Your task to perform on an android device: Open the calendar and show me this week's events? Image 0: 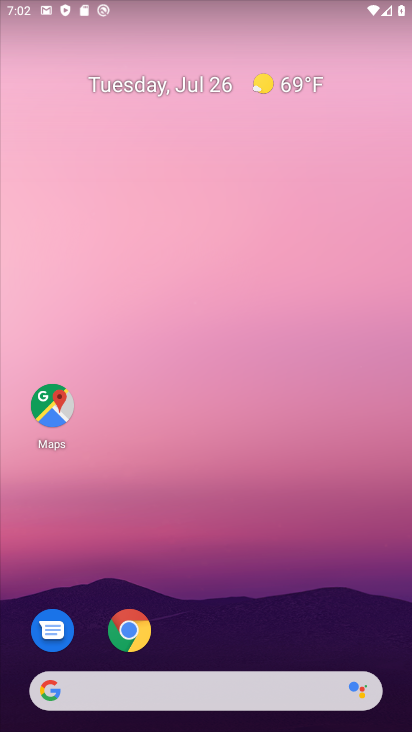
Step 0: drag from (280, 613) to (304, 35)
Your task to perform on an android device: Open the calendar and show me this week's events? Image 1: 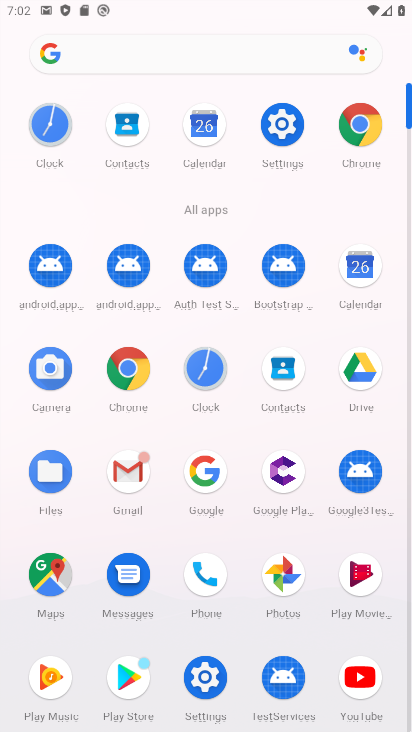
Step 1: click (371, 278)
Your task to perform on an android device: Open the calendar and show me this week's events? Image 2: 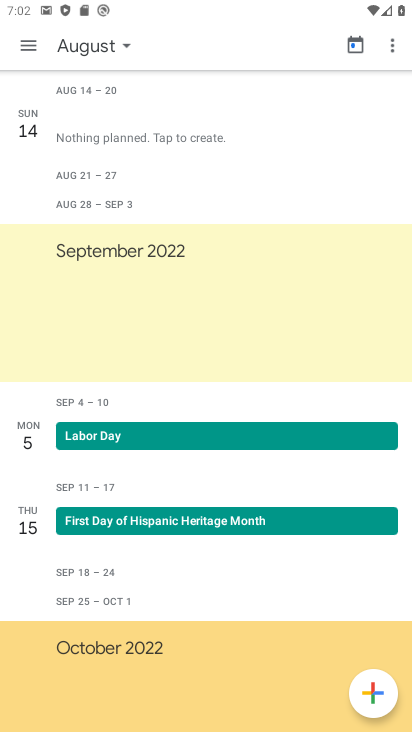
Step 2: click (23, 49)
Your task to perform on an android device: Open the calendar and show me this week's events? Image 3: 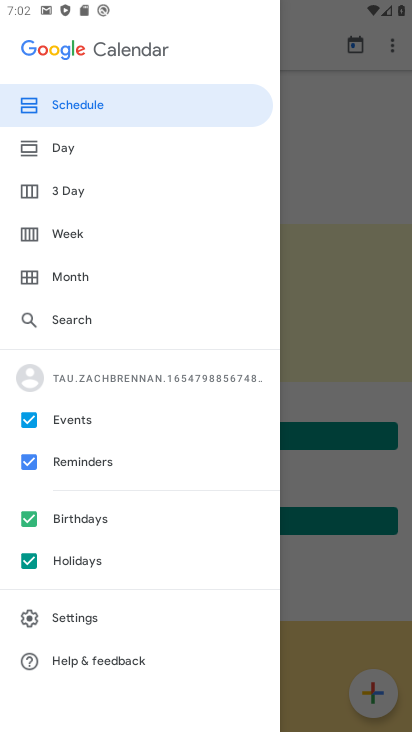
Step 3: click (83, 199)
Your task to perform on an android device: Open the calendar and show me this week's events? Image 4: 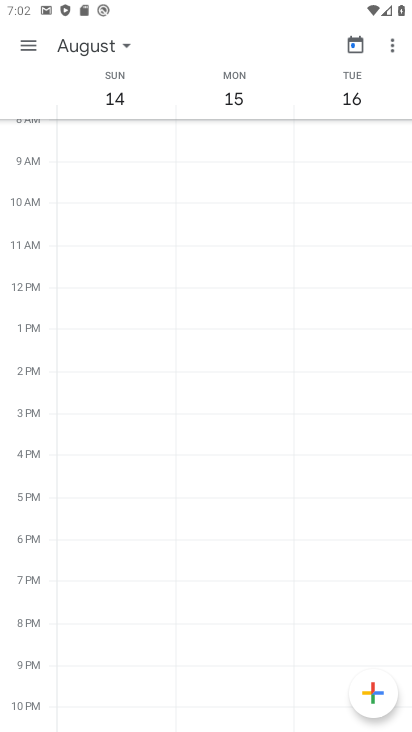
Step 4: task complete